Your task to perform on an android device: turn on javascript in the chrome app Image 0: 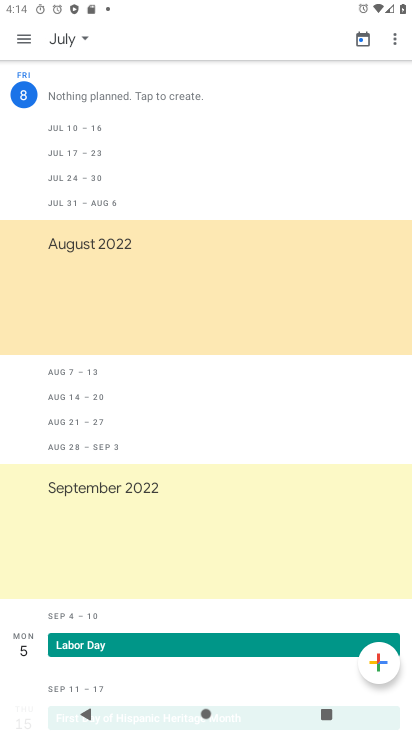
Step 0: press home button
Your task to perform on an android device: turn on javascript in the chrome app Image 1: 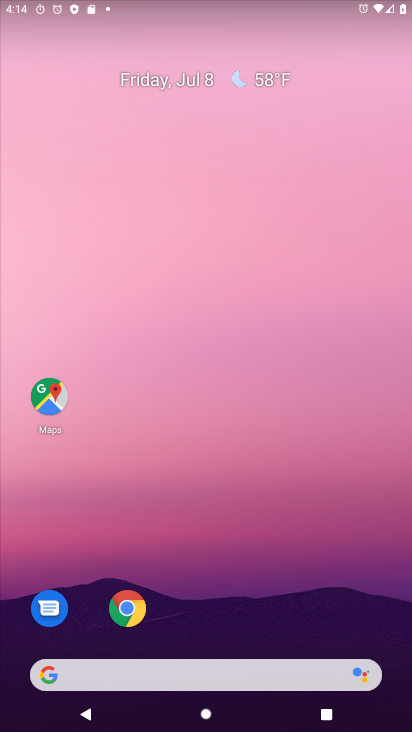
Step 1: click (123, 610)
Your task to perform on an android device: turn on javascript in the chrome app Image 2: 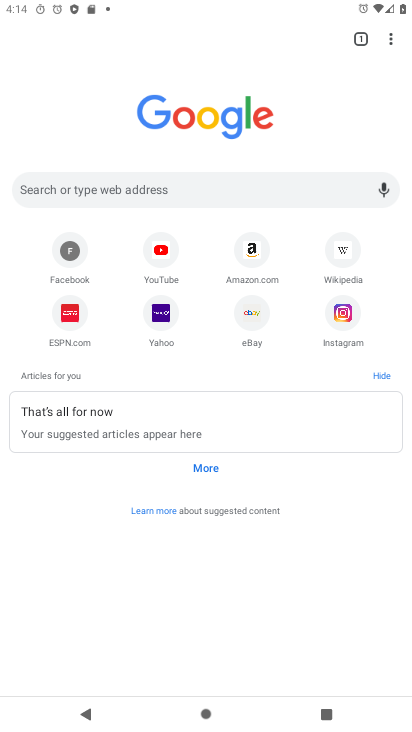
Step 2: click (389, 34)
Your task to perform on an android device: turn on javascript in the chrome app Image 3: 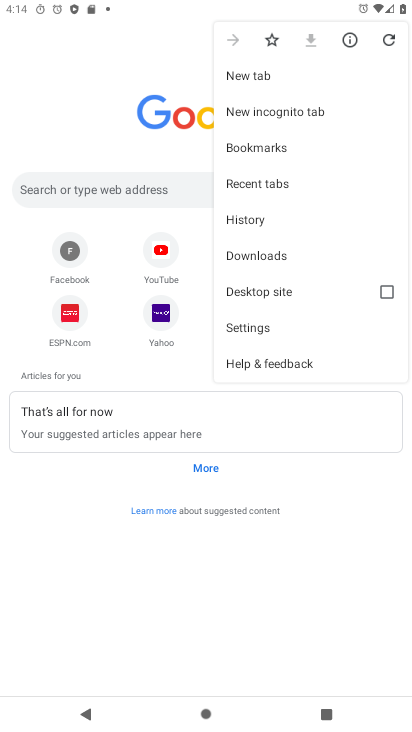
Step 3: click (239, 321)
Your task to perform on an android device: turn on javascript in the chrome app Image 4: 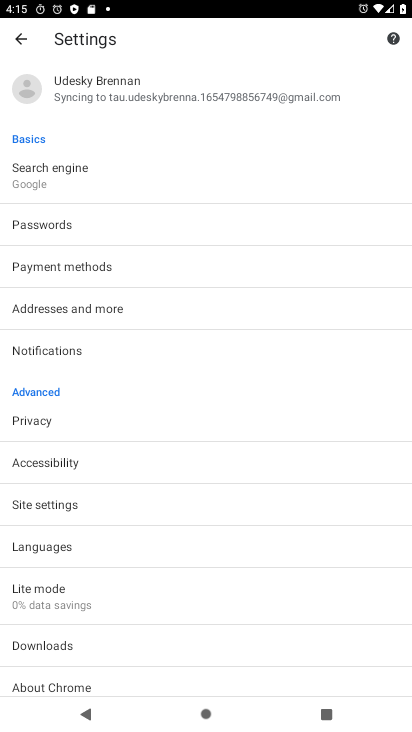
Step 4: click (107, 490)
Your task to perform on an android device: turn on javascript in the chrome app Image 5: 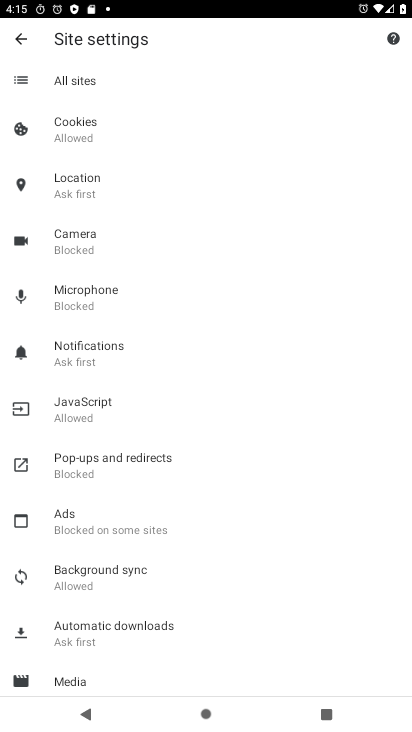
Step 5: click (100, 401)
Your task to perform on an android device: turn on javascript in the chrome app Image 6: 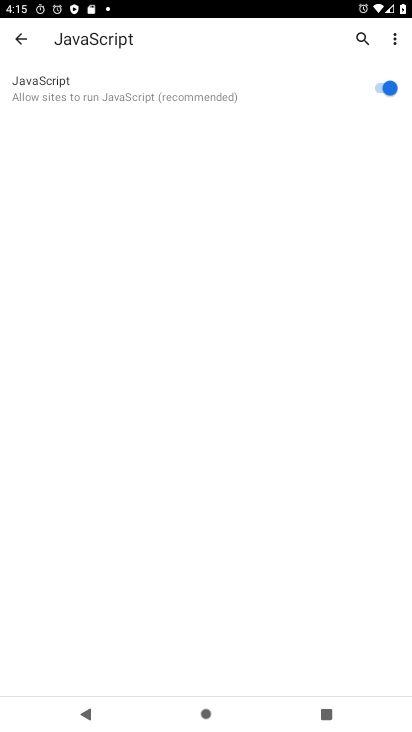
Step 6: task complete